Your task to perform on an android device: Open Youtube and go to the subscriptions tab Image 0: 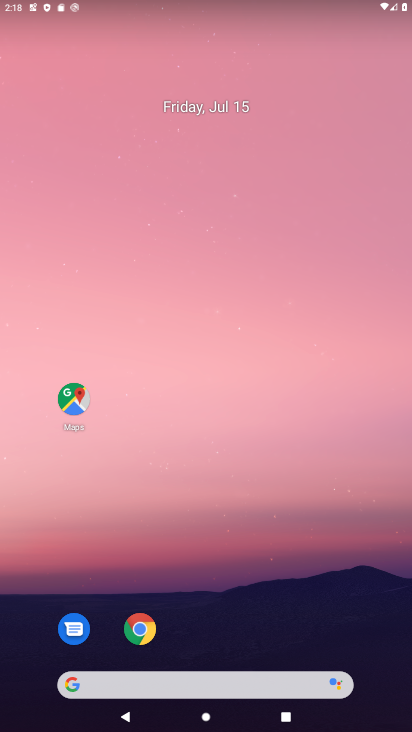
Step 0: drag from (213, 653) to (258, 127)
Your task to perform on an android device: Open Youtube and go to the subscriptions tab Image 1: 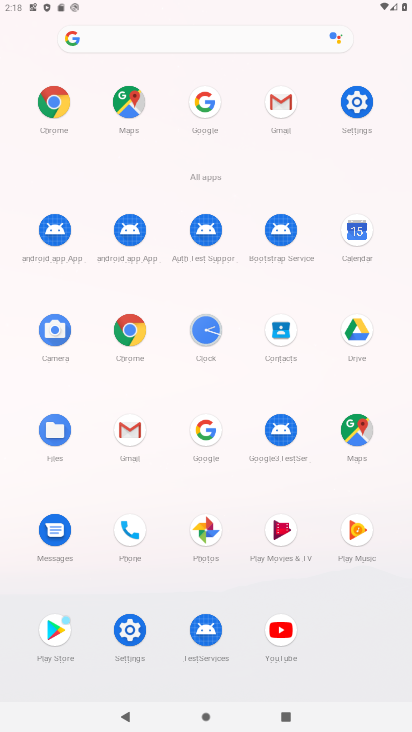
Step 1: click (283, 632)
Your task to perform on an android device: Open Youtube and go to the subscriptions tab Image 2: 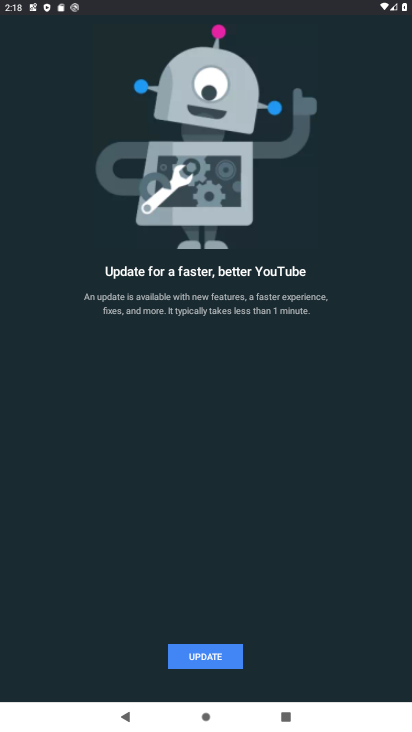
Step 2: click (194, 654)
Your task to perform on an android device: Open Youtube and go to the subscriptions tab Image 3: 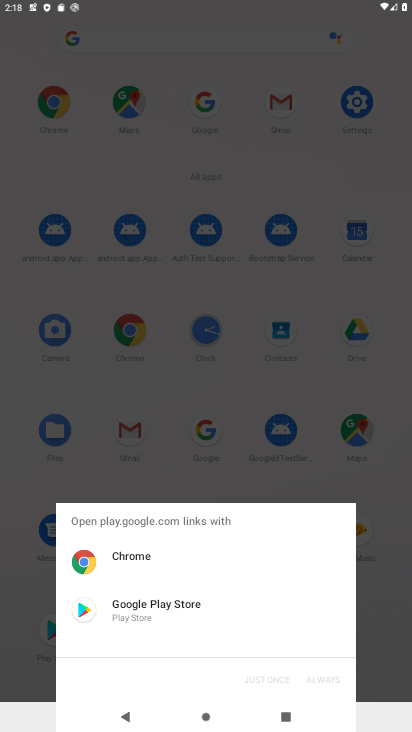
Step 3: click (138, 608)
Your task to perform on an android device: Open Youtube and go to the subscriptions tab Image 4: 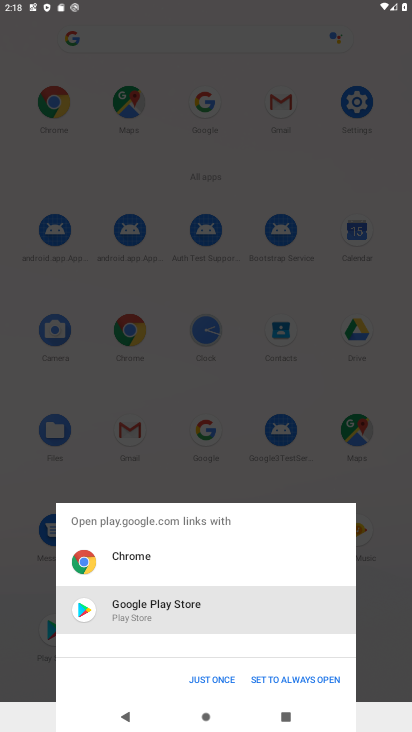
Step 4: click (207, 678)
Your task to perform on an android device: Open Youtube and go to the subscriptions tab Image 5: 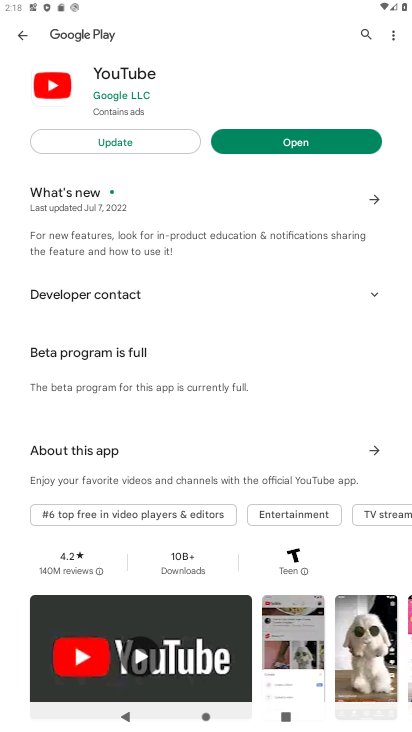
Step 5: click (100, 146)
Your task to perform on an android device: Open Youtube and go to the subscriptions tab Image 6: 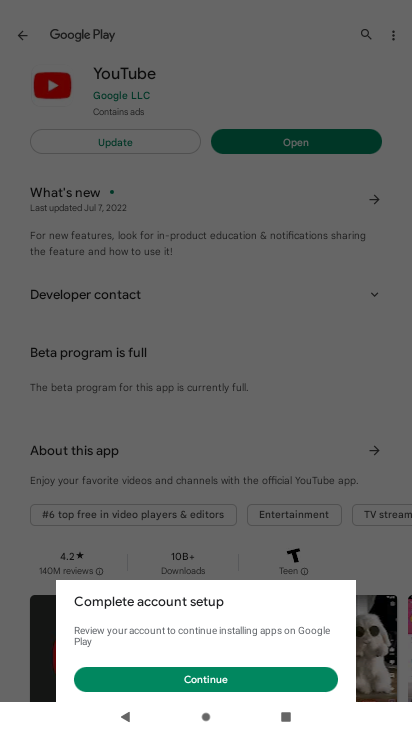
Step 6: click (228, 672)
Your task to perform on an android device: Open Youtube and go to the subscriptions tab Image 7: 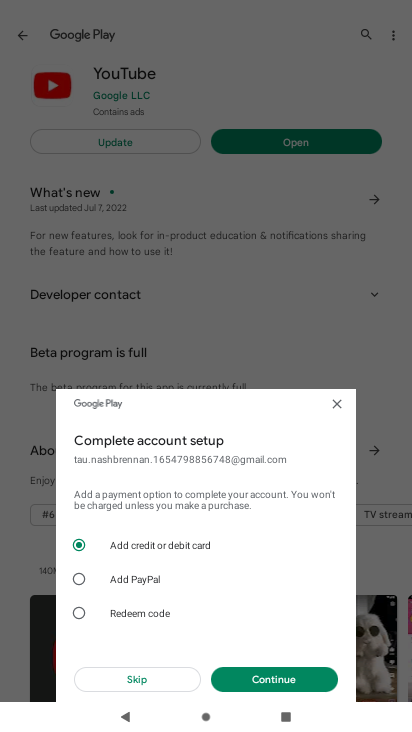
Step 7: click (148, 676)
Your task to perform on an android device: Open Youtube and go to the subscriptions tab Image 8: 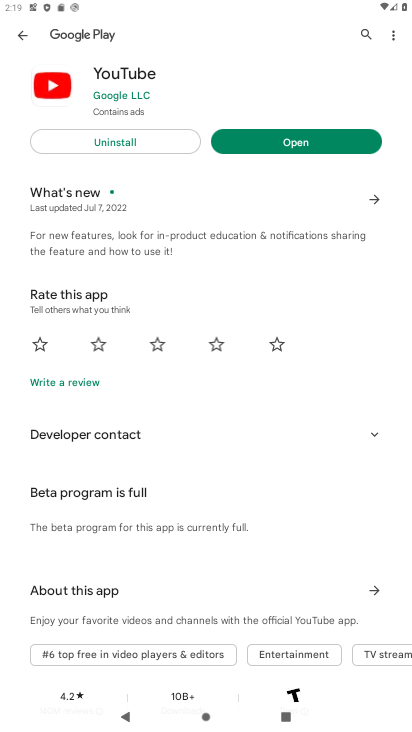
Step 8: click (285, 141)
Your task to perform on an android device: Open Youtube and go to the subscriptions tab Image 9: 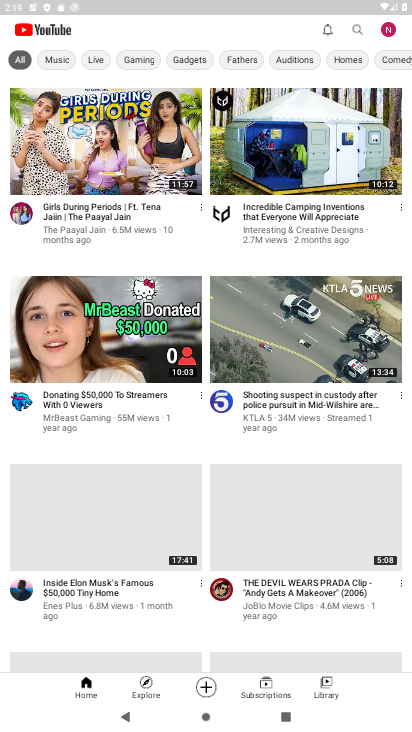
Step 9: click (264, 684)
Your task to perform on an android device: Open Youtube and go to the subscriptions tab Image 10: 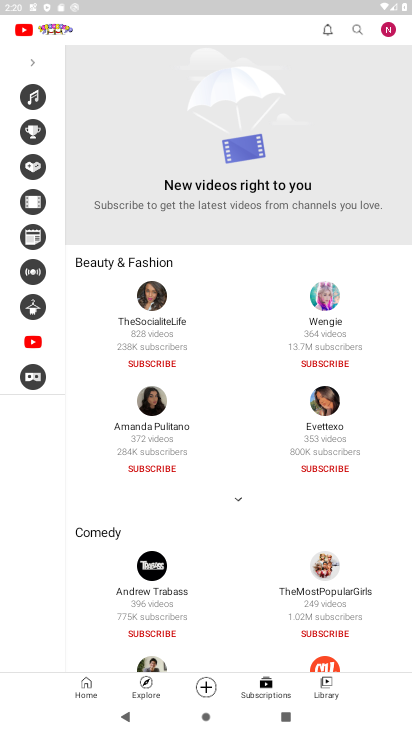
Step 10: task complete